Your task to perform on an android device: Turn on the flashlight Image 0: 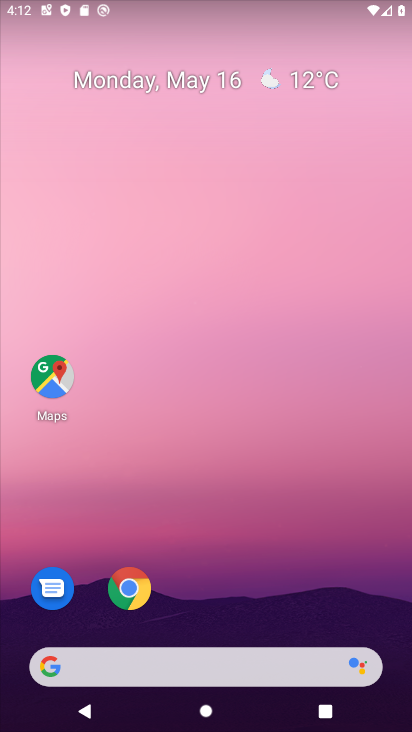
Step 0: drag from (255, 530) to (220, 136)
Your task to perform on an android device: Turn on the flashlight Image 1: 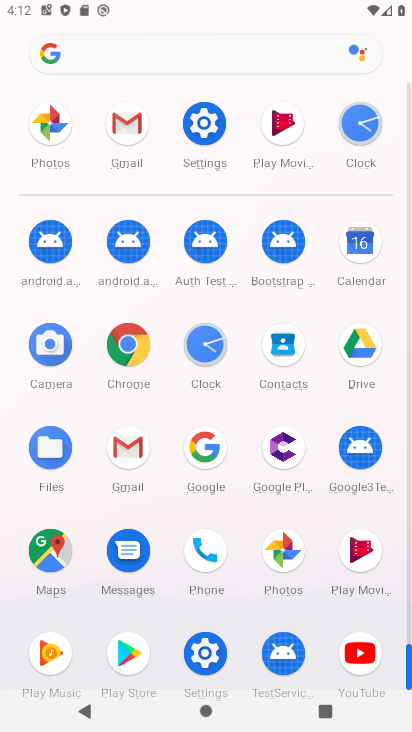
Step 1: click (192, 121)
Your task to perform on an android device: Turn on the flashlight Image 2: 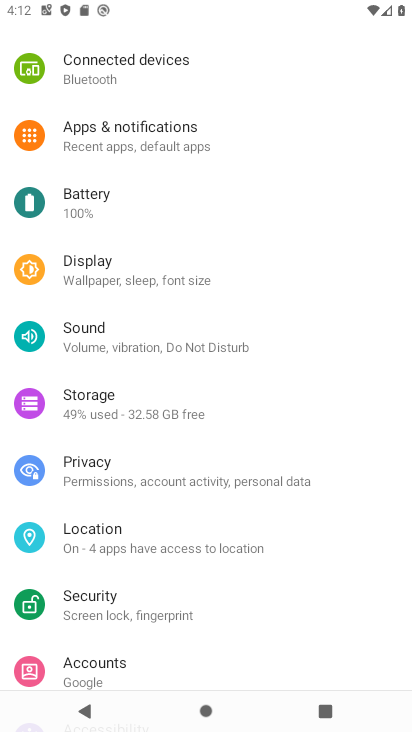
Step 2: click (179, 135)
Your task to perform on an android device: Turn on the flashlight Image 3: 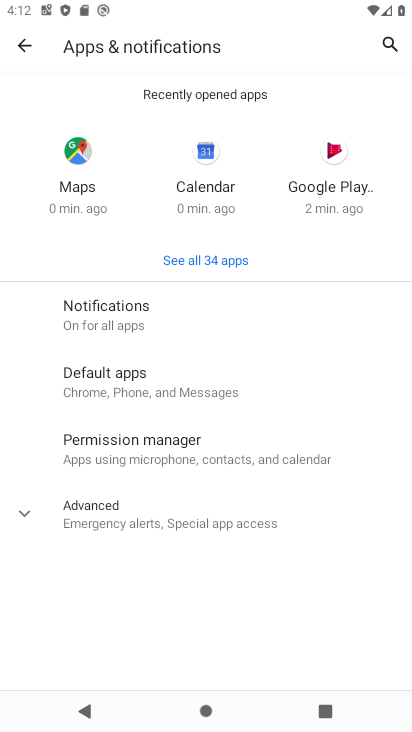
Step 3: click (181, 526)
Your task to perform on an android device: Turn on the flashlight Image 4: 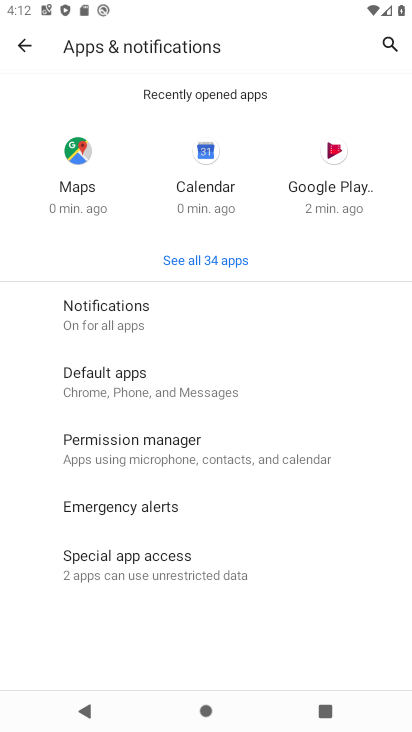
Step 4: click (173, 575)
Your task to perform on an android device: Turn on the flashlight Image 5: 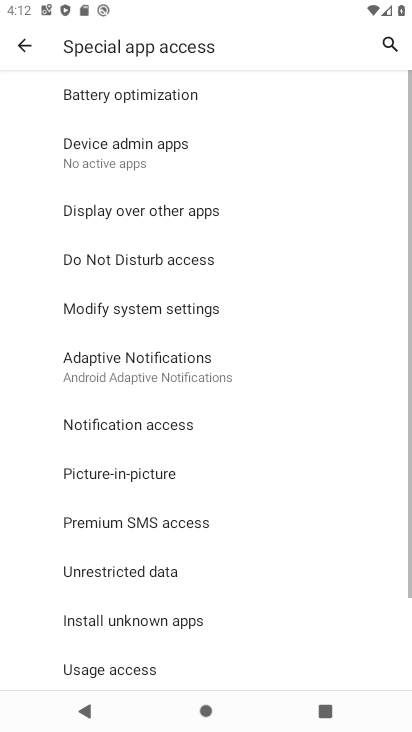
Step 5: task complete